Your task to perform on an android device: Open Google Image 0: 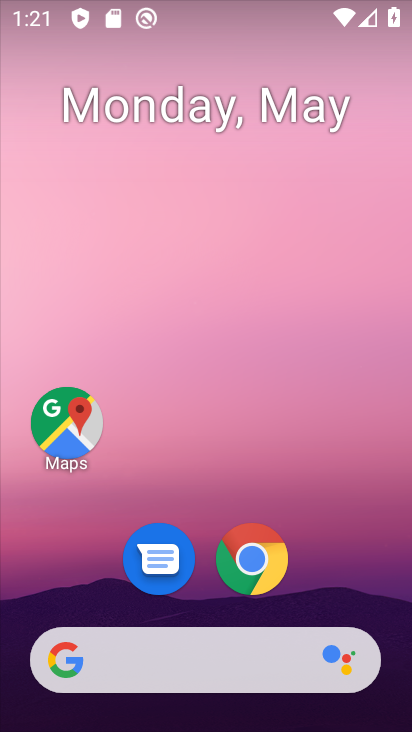
Step 0: drag from (316, 535) to (282, 90)
Your task to perform on an android device: Open Google Image 1: 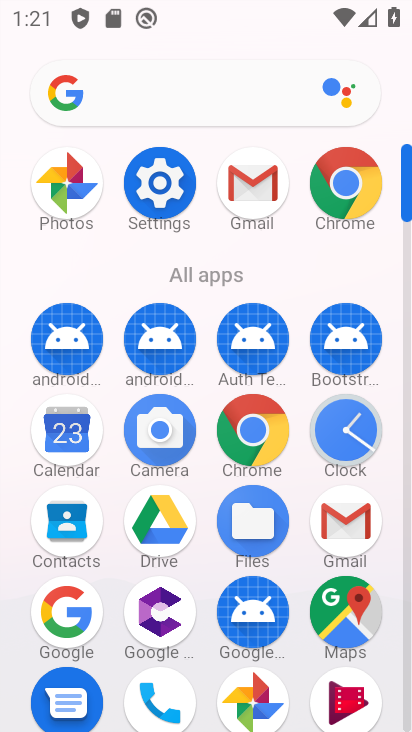
Step 1: click (82, 605)
Your task to perform on an android device: Open Google Image 2: 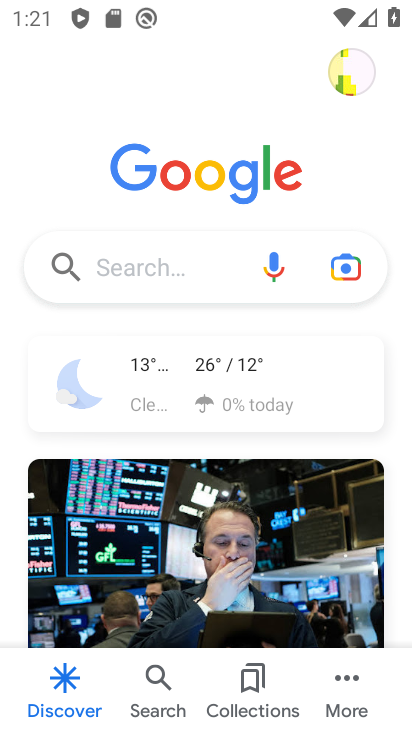
Step 2: task complete